Your task to perform on an android device: toggle airplane mode Image 0: 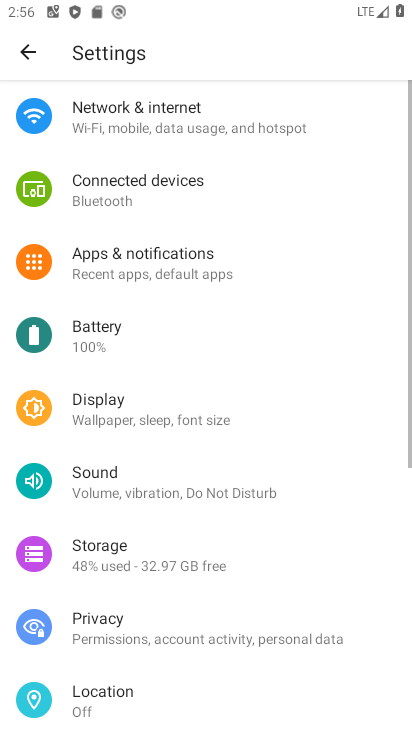
Step 0: press home button
Your task to perform on an android device: toggle airplane mode Image 1: 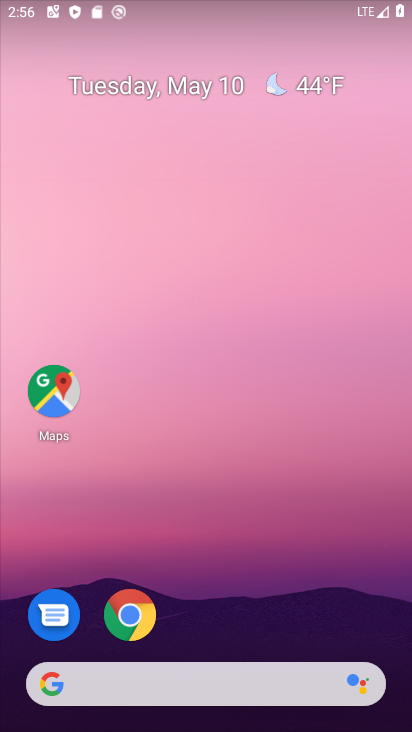
Step 1: drag from (288, 1) to (305, 368)
Your task to perform on an android device: toggle airplane mode Image 2: 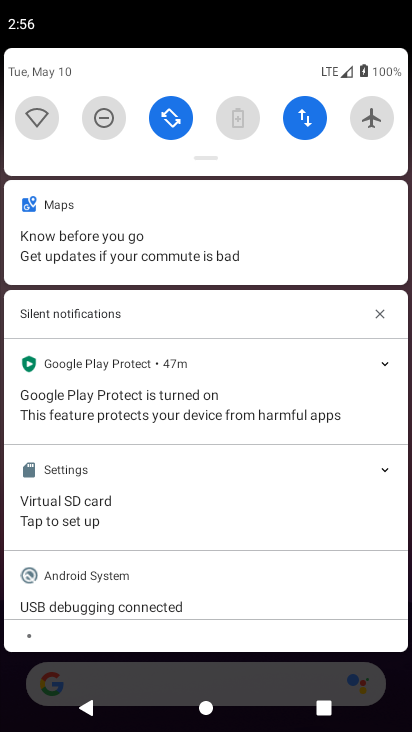
Step 2: click (378, 105)
Your task to perform on an android device: toggle airplane mode Image 3: 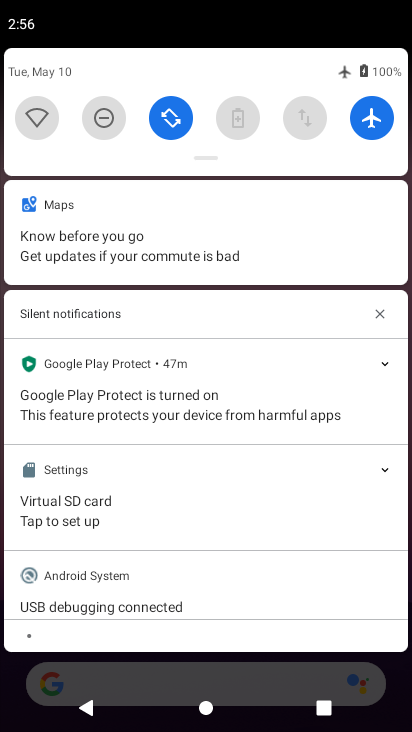
Step 3: task complete